Your task to perform on an android device: turn on wifi Image 0: 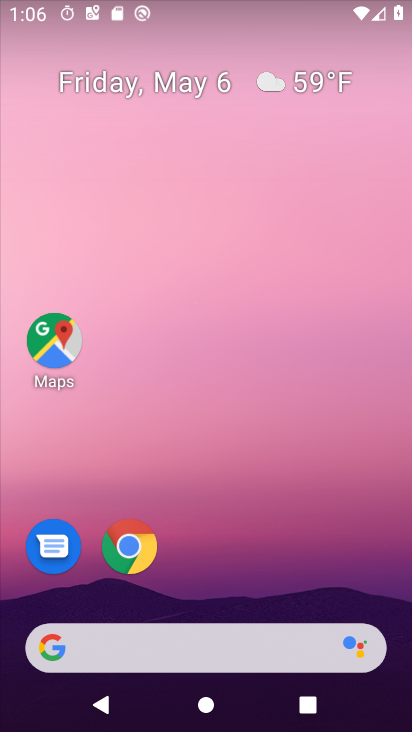
Step 0: drag from (262, 550) to (245, 79)
Your task to perform on an android device: turn on wifi Image 1: 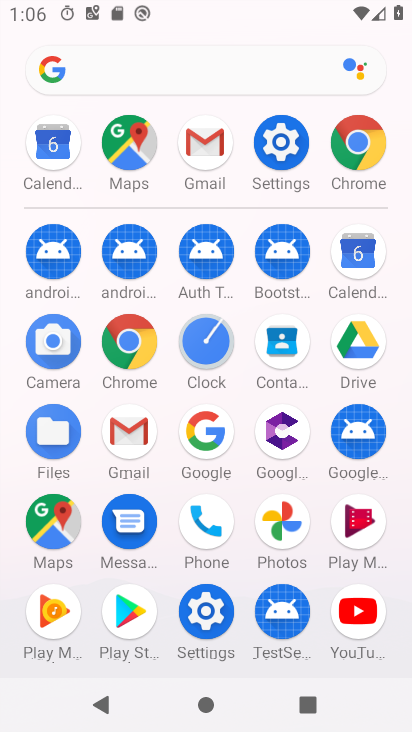
Step 1: click (286, 151)
Your task to perform on an android device: turn on wifi Image 2: 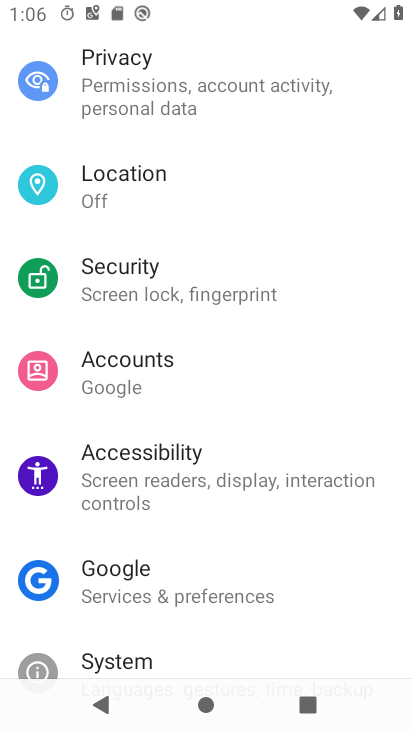
Step 2: drag from (250, 208) to (239, 571)
Your task to perform on an android device: turn on wifi Image 3: 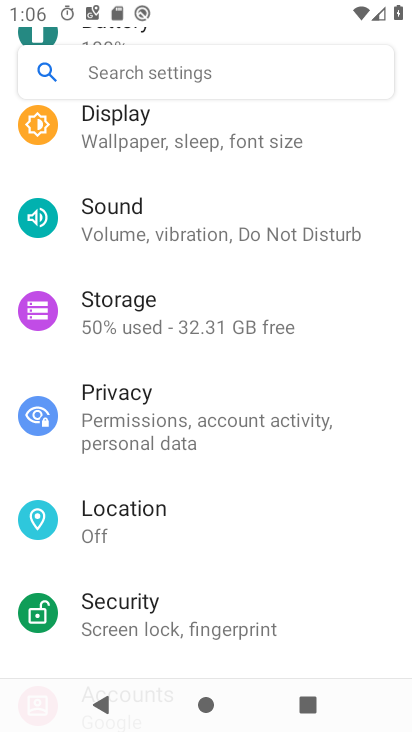
Step 3: drag from (225, 189) to (213, 610)
Your task to perform on an android device: turn on wifi Image 4: 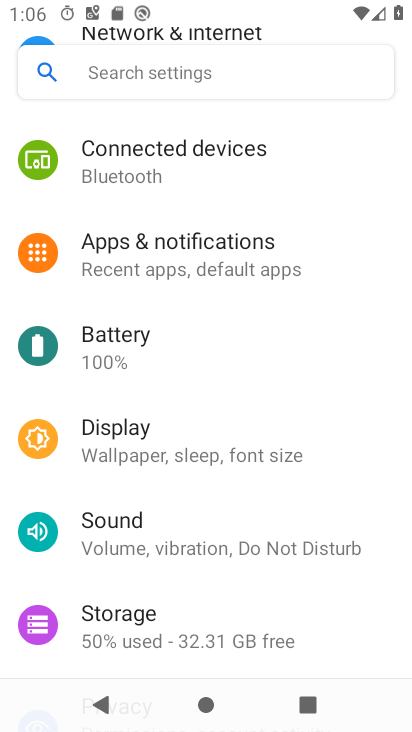
Step 4: drag from (193, 214) to (183, 644)
Your task to perform on an android device: turn on wifi Image 5: 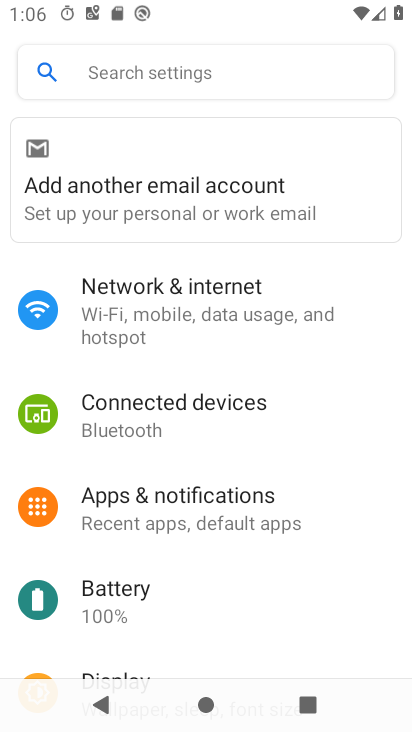
Step 5: click (149, 326)
Your task to perform on an android device: turn on wifi Image 6: 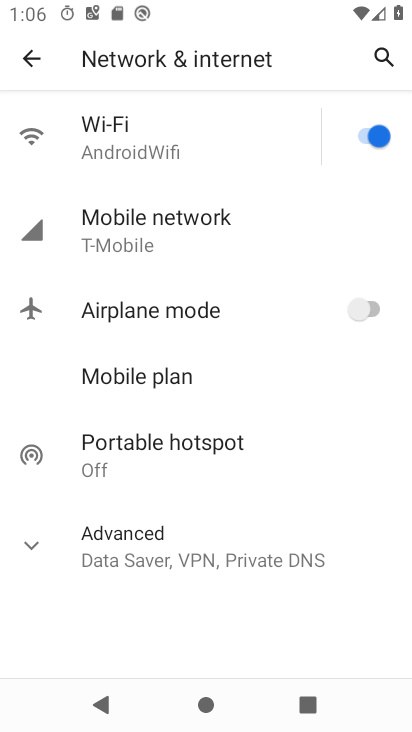
Step 6: click (137, 135)
Your task to perform on an android device: turn on wifi Image 7: 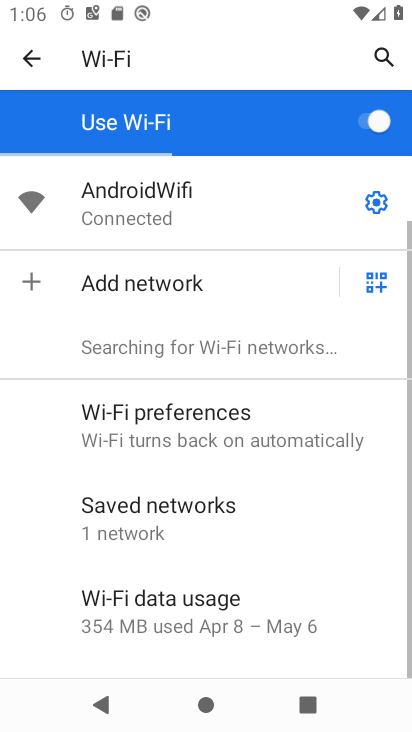
Step 7: task complete